Your task to perform on an android device: See recent photos Image 0: 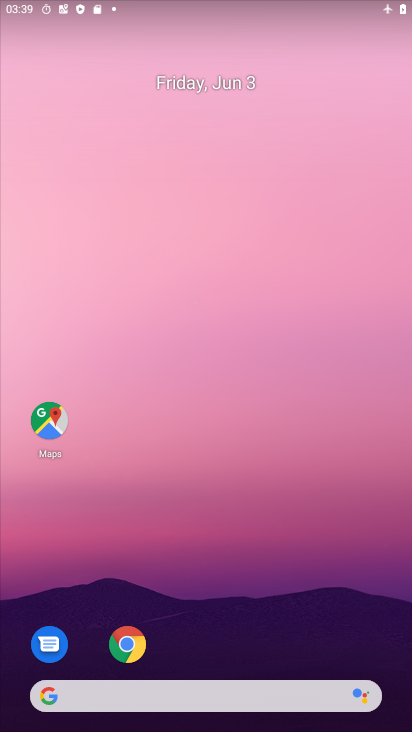
Step 0: drag from (195, 640) to (210, 190)
Your task to perform on an android device: See recent photos Image 1: 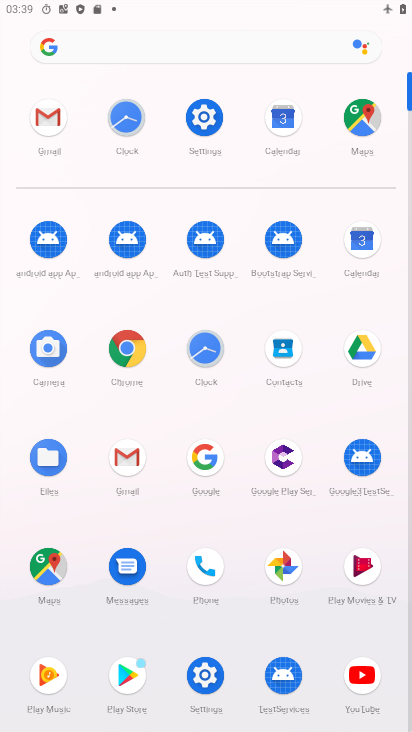
Step 1: click (292, 567)
Your task to perform on an android device: See recent photos Image 2: 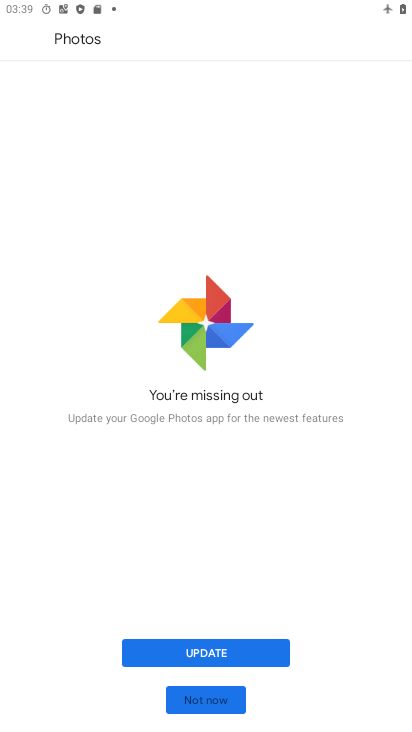
Step 2: click (221, 707)
Your task to perform on an android device: See recent photos Image 3: 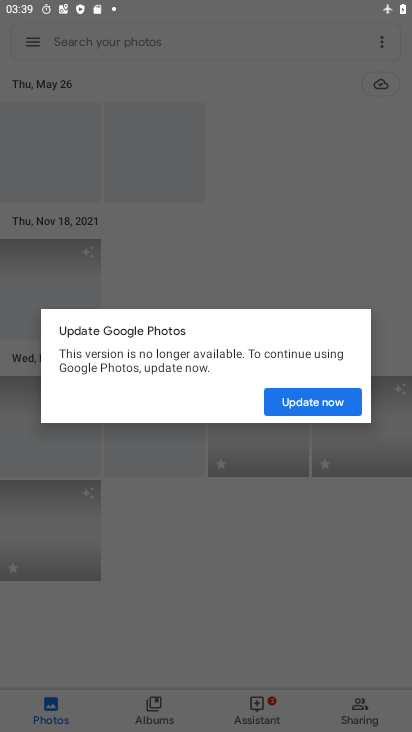
Step 3: click (290, 404)
Your task to perform on an android device: See recent photos Image 4: 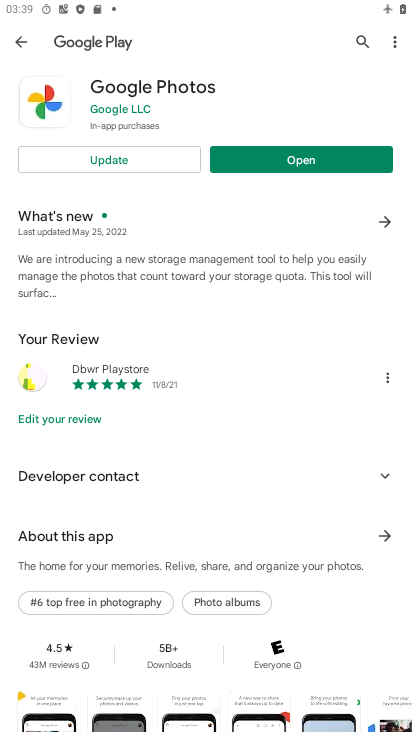
Step 4: click (274, 162)
Your task to perform on an android device: See recent photos Image 5: 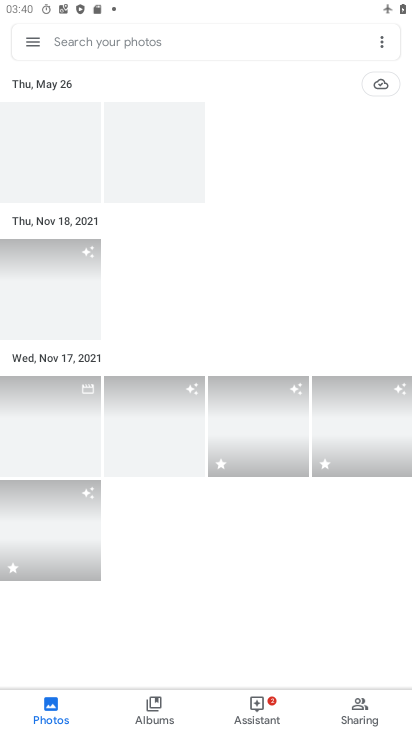
Step 5: task complete